Your task to perform on an android device: Turn off the flashlight Image 0: 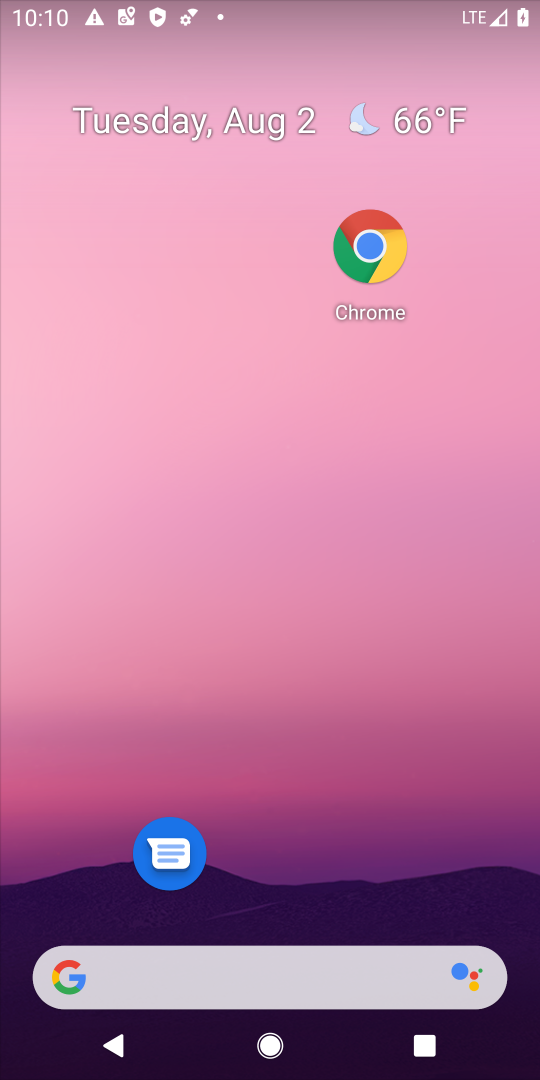
Step 0: drag from (290, 907) to (300, 81)
Your task to perform on an android device: Turn off the flashlight Image 1: 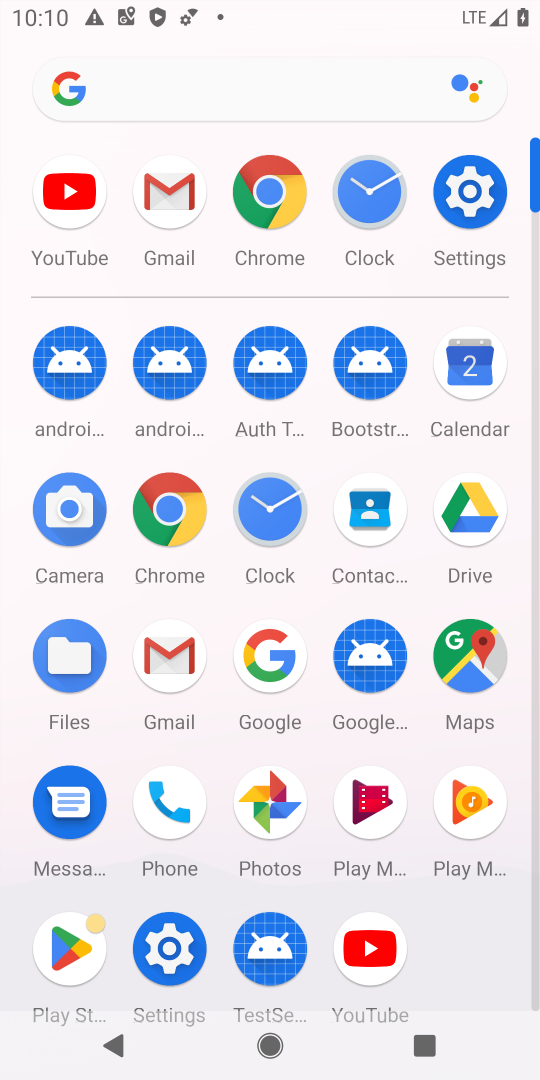
Step 1: click (468, 190)
Your task to perform on an android device: Turn off the flashlight Image 2: 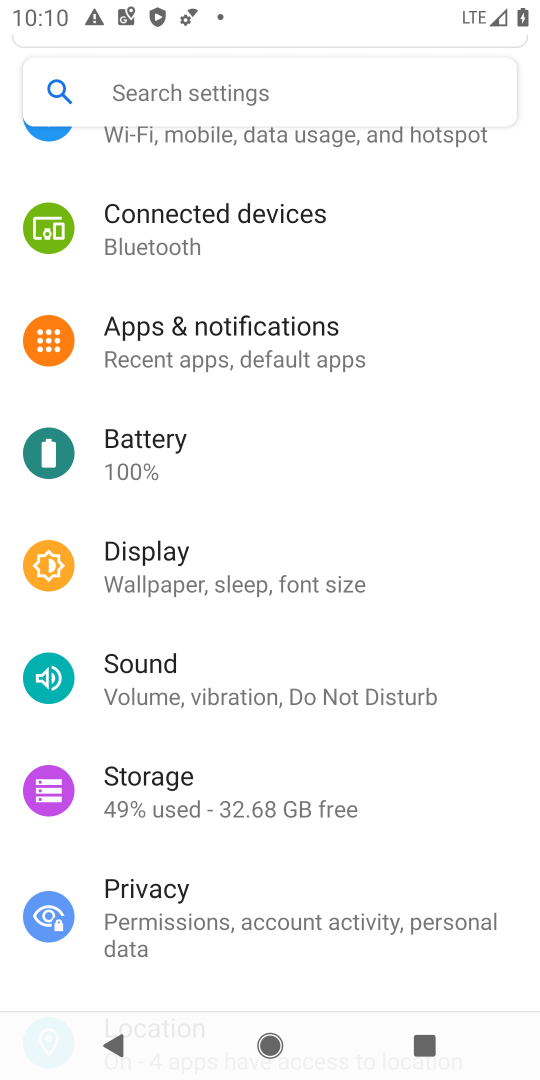
Step 2: task complete